Your task to perform on an android device: Go to internet settings Image 0: 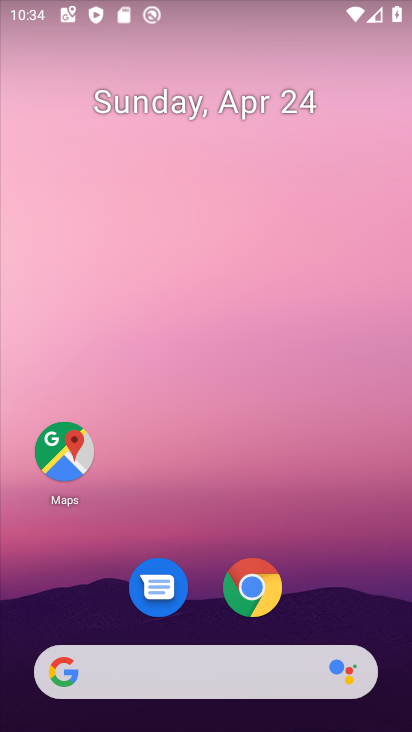
Step 0: drag from (361, 603) to (330, 115)
Your task to perform on an android device: Go to internet settings Image 1: 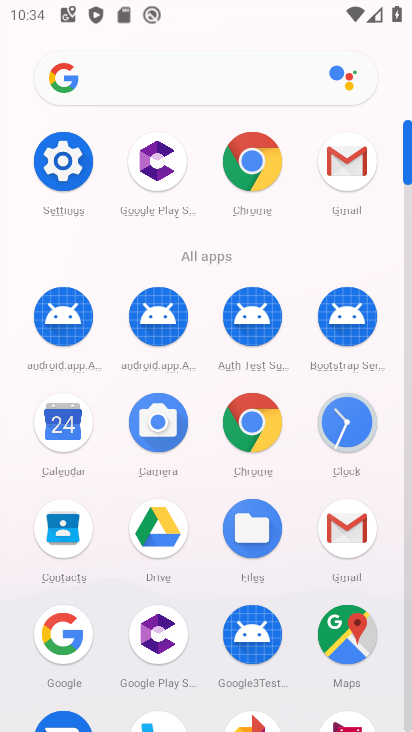
Step 1: click (66, 164)
Your task to perform on an android device: Go to internet settings Image 2: 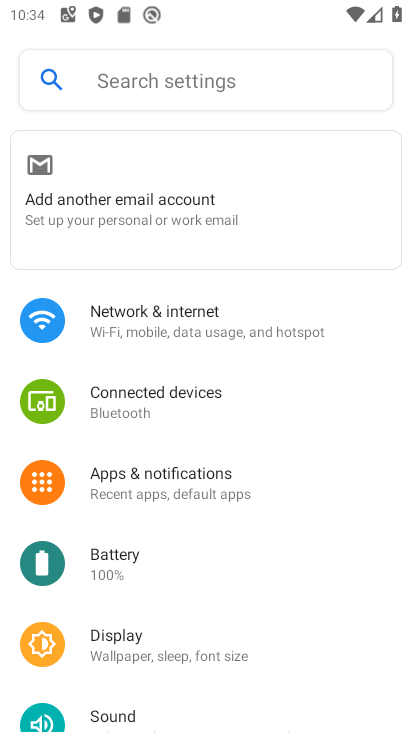
Step 2: click (176, 315)
Your task to perform on an android device: Go to internet settings Image 3: 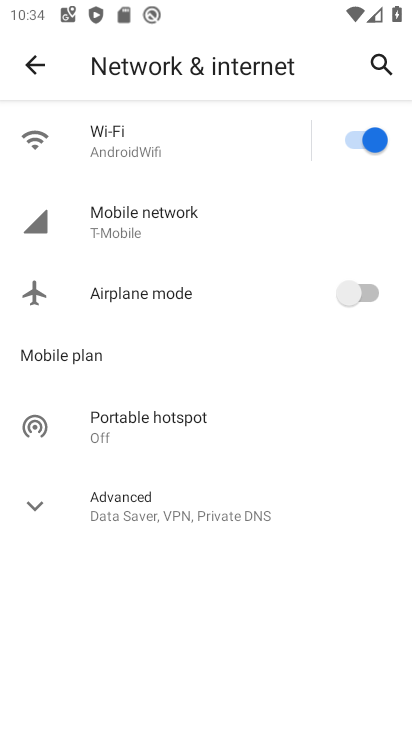
Step 3: click (170, 219)
Your task to perform on an android device: Go to internet settings Image 4: 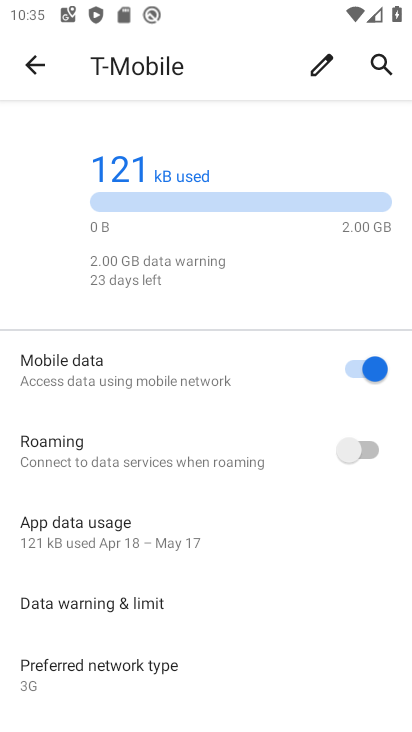
Step 4: task complete